Your task to perform on an android device: Open the map Image 0: 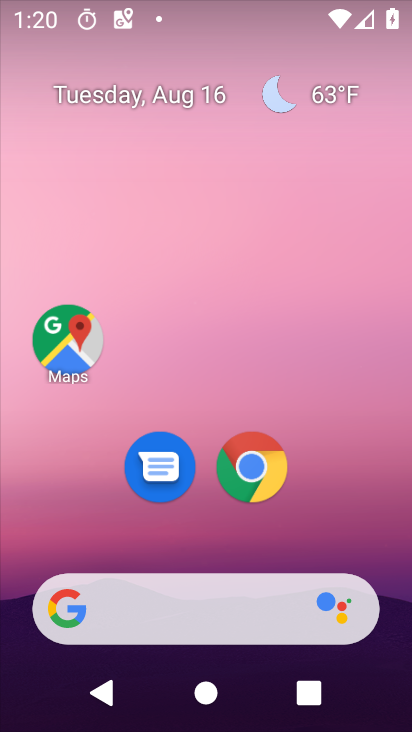
Step 0: press home button
Your task to perform on an android device: Open the map Image 1: 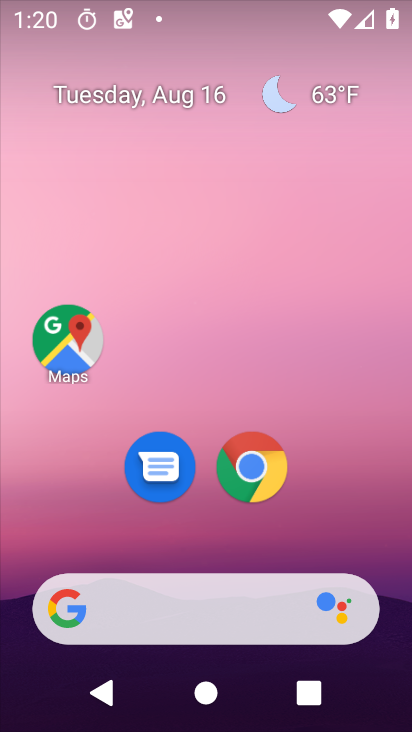
Step 1: drag from (380, 562) to (362, 146)
Your task to perform on an android device: Open the map Image 2: 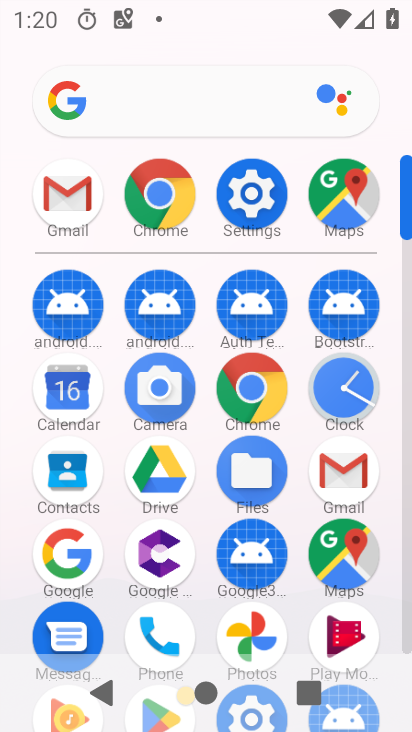
Step 2: click (344, 548)
Your task to perform on an android device: Open the map Image 3: 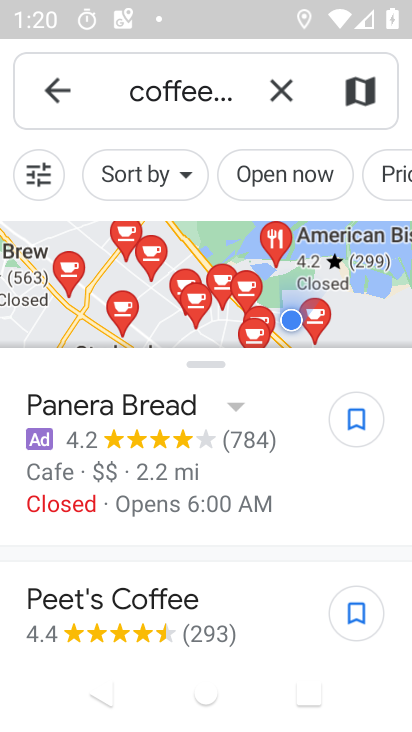
Step 3: task complete